Your task to perform on an android device: allow cookies in the chrome app Image 0: 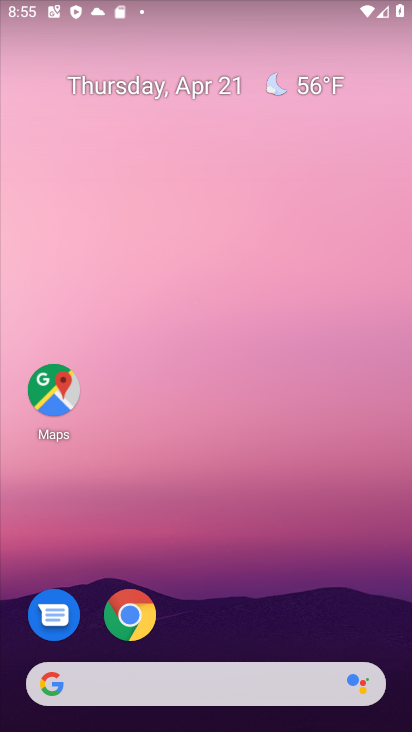
Step 0: click (132, 613)
Your task to perform on an android device: allow cookies in the chrome app Image 1: 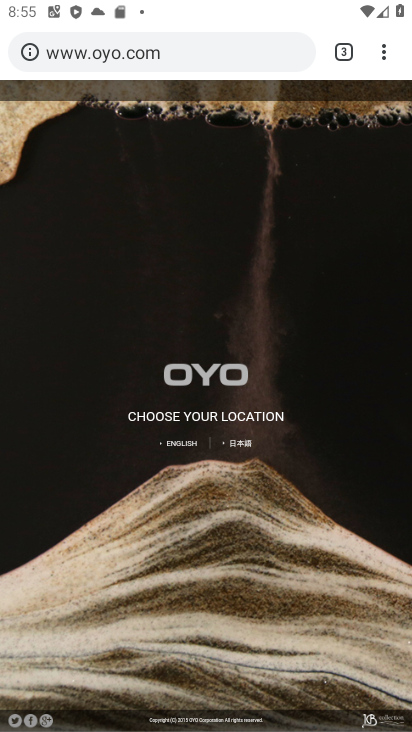
Step 1: click (381, 50)
Your task to perform on an android device: allow cookies in the chrome app Image 2: 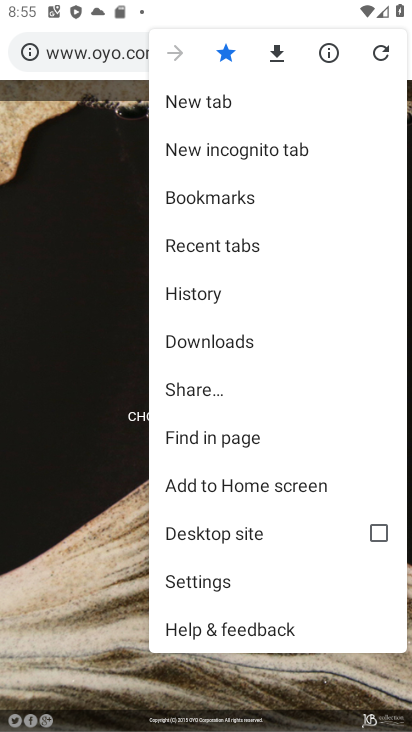
Step 2: click (211, 582)
Your task to perform on an android device: allow cookies in the chrome app Image 3: 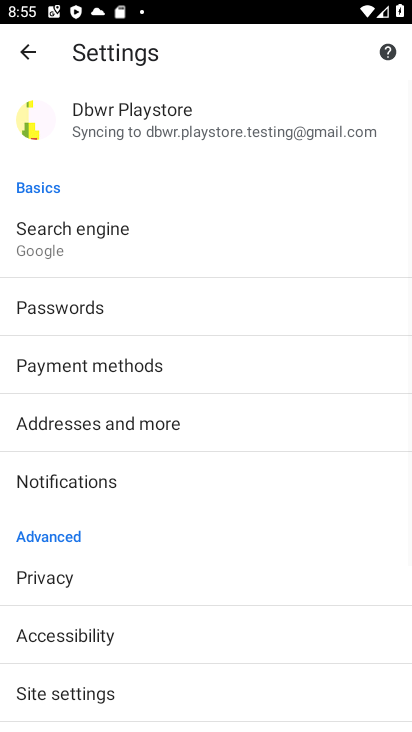
Step 3: click (63, 581)
Your task to perform on an android device: allow cookies in the chrome app Image 4: 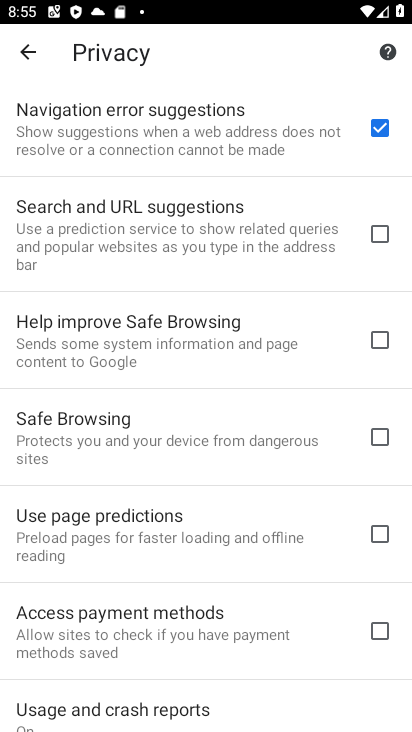
Step 4: press back button
Your task to perform on an android device: allow cookies in the chrome app Image 5: 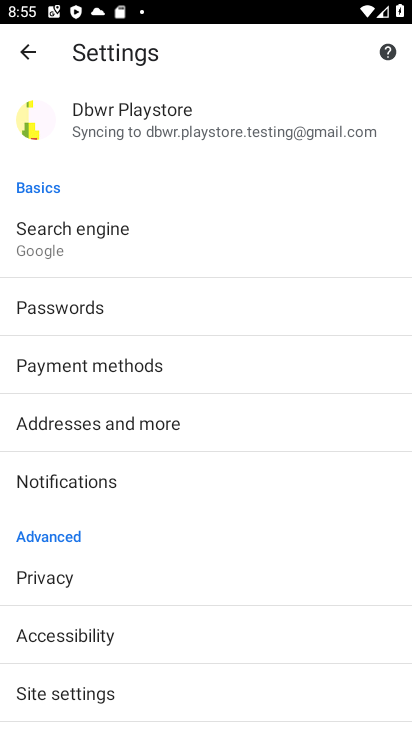
Step 5: click (118, 696)
Your task to perform on an android device: allow cookies in the chrome app Image 6: 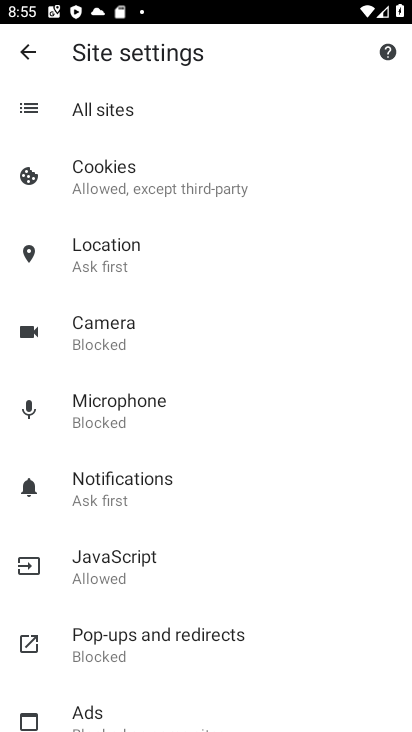
Step 6: click (195, 181)
Your task to perform on an android device: allow cookies in the chrome app Image 7: 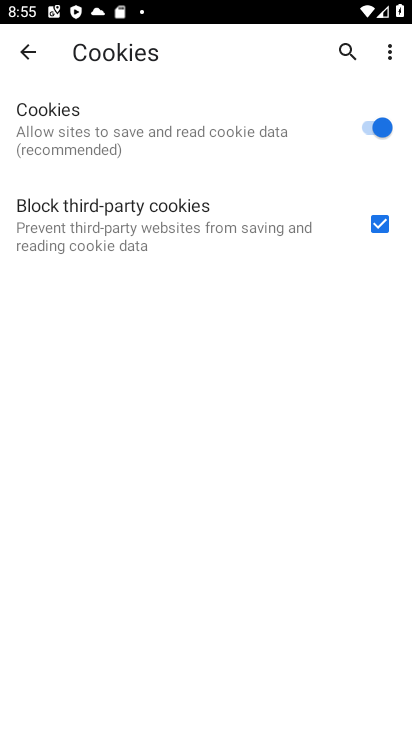
Step 7: task complete